Your task to perform on an android device: Open the calendar app, open the side menu, and click the "Day" option Image 0: 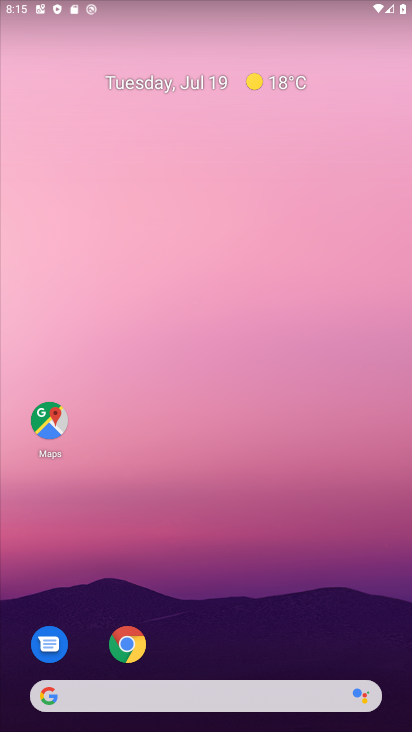
Step 0: drag from (270, 724) to (271, 176)
Your task to perform on an android device: Open the calendar app, open the side menu, and click the "Day" option Image 1: 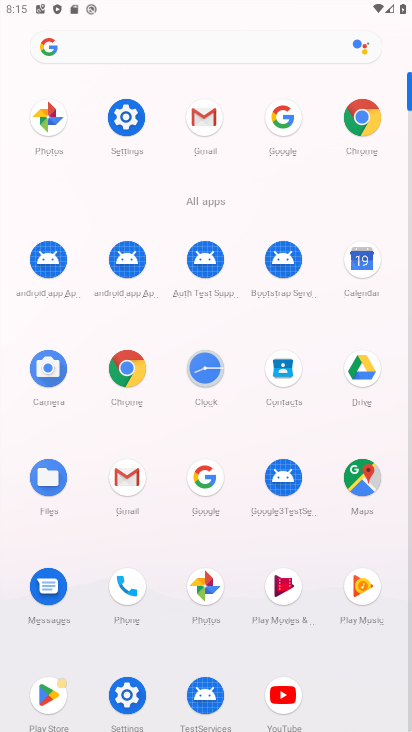
Step 1: click (369, 252)
Your task to perform on an android device: Open the calendar app, open the side menu, and click the "Day" option Image 2: 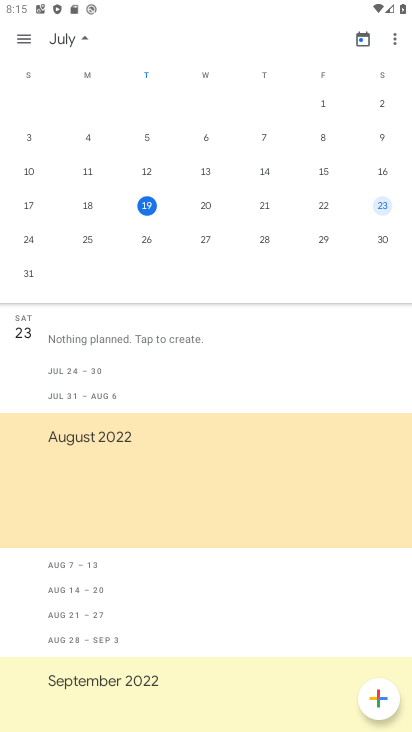
Step 2: click (24, 41)
Your task to perform on an android device: Open the calendar app, open the side menu, and click the "Day" option Image 3: 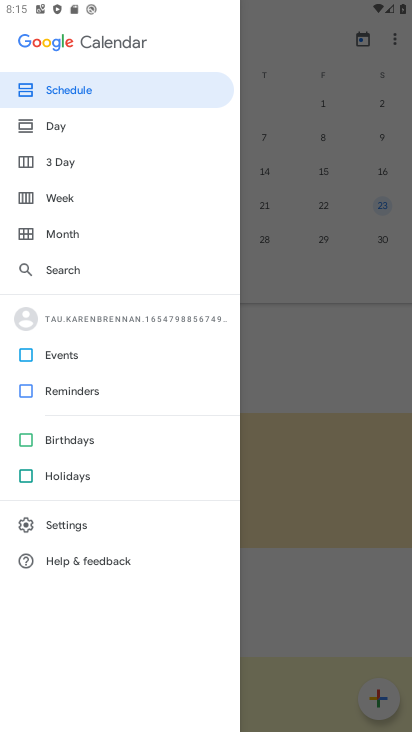
Step 3: click (73, 123)
Your task to perform on an android device: Open the calendar app, open the side menu, and click the "Day" option Image 4: 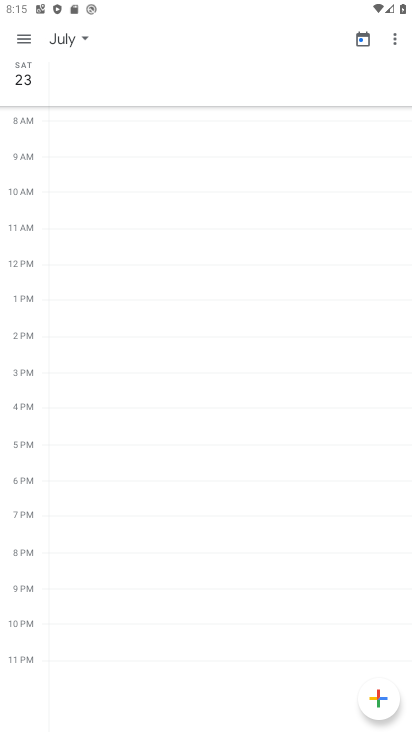
Step 4: task complete